Your task to perform on an android device: turn on data saver in the chrome app Image 0: 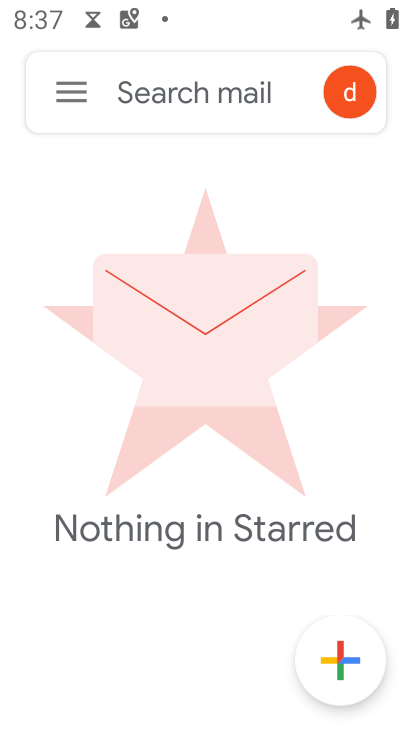
Step 0: press home button
Your task to perform on an android device: turn on data saver in the chrome app Image 1: 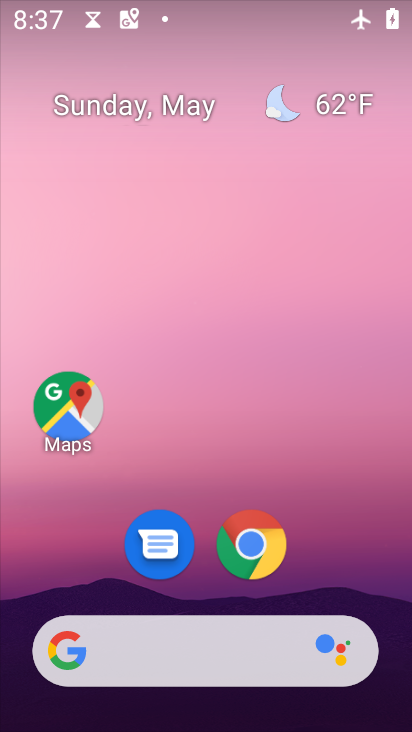
Step 1: click (257, 546)
Your task to perform on an android device: turn on data saver in the chrome app Image 2: 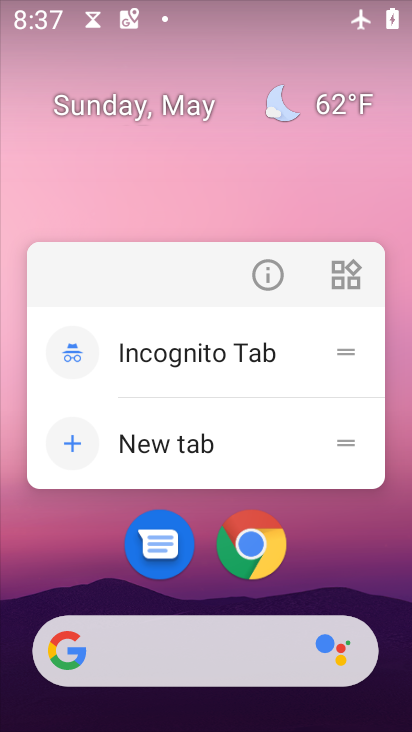
Step 2: click (245, 551)
Your task to perform on an android device: turn on data saver in the chrome app Image 3: 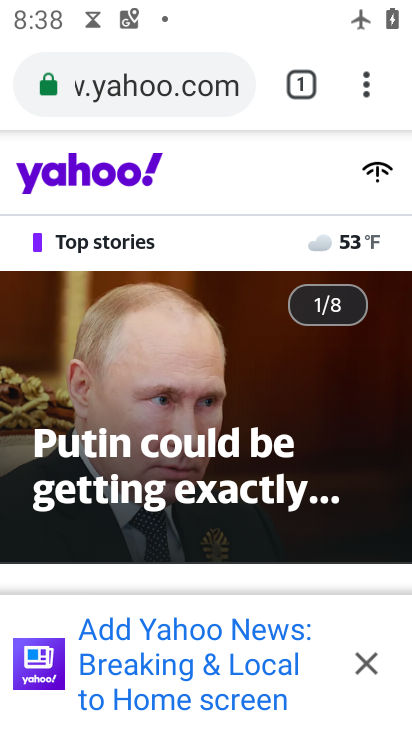
Step 3: click (366, 85)
Your task to perform on an android device: turn on data saver in the chrome app Image 4: 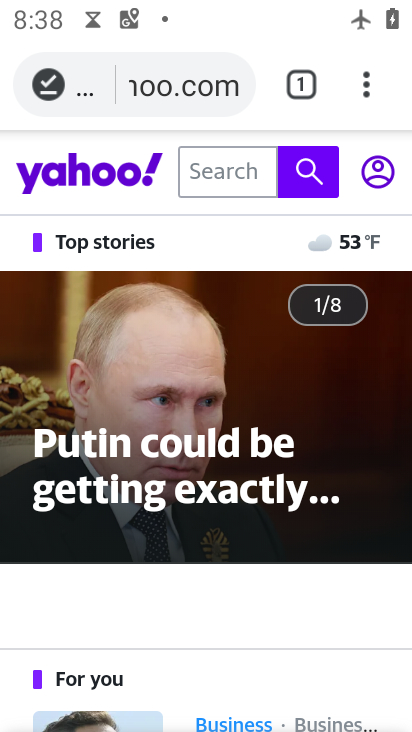
Step 4: click (373, 91)
Your task to perform on an android device: turn on data saver in the chrome app Image 5: 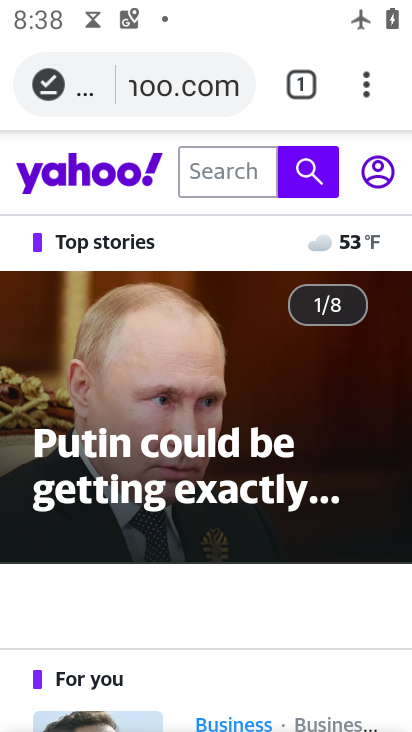
Step 5: click (366, 94)
Your task to perform on an android device: turn on data saver in the chrome app Image 6: 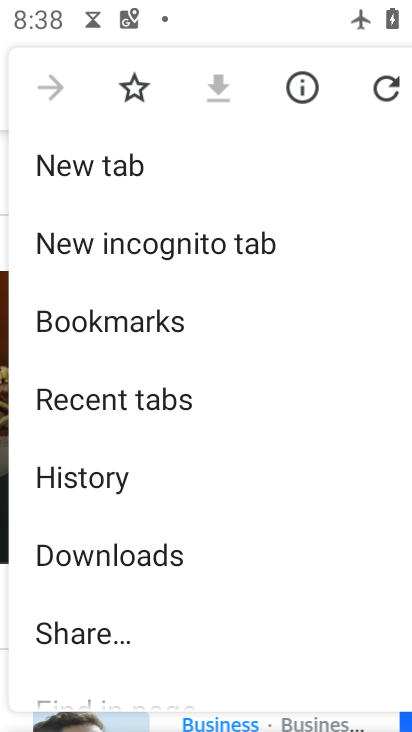
Step 6: drag from (174, 627) to (178, 138)
Your task to perform on an android device: turn on data saver in the chrome app Image 7: 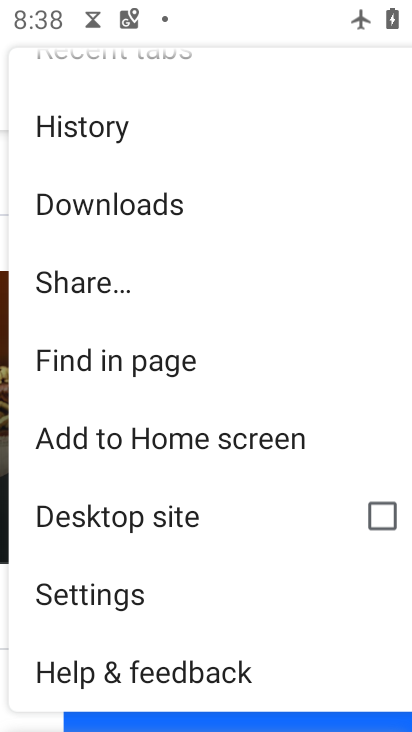
Step 7: click (77, 607)
Your task to perform on an android device: turn on data saver in the chrome app Image 8: 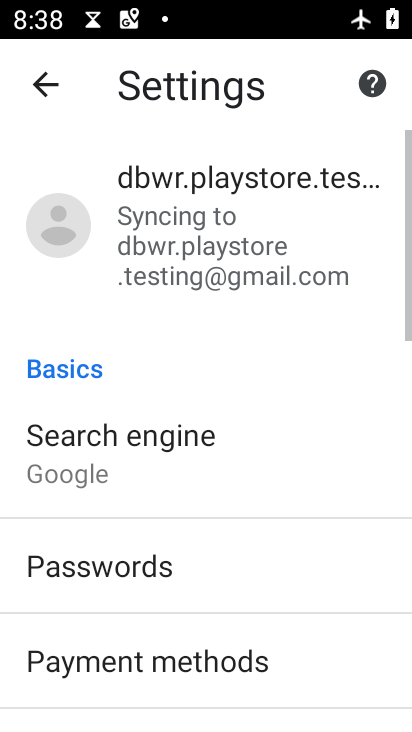
Step 8: drag from (155, 653) to (286, 208)
Your task to perform on an android device: turn on data saver in the chrome app Image 9: 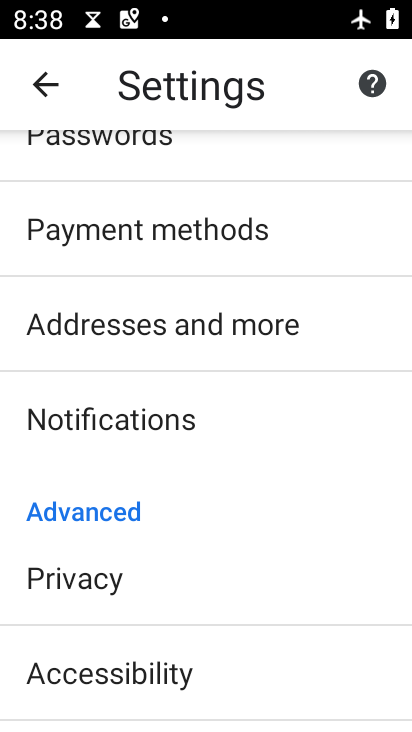
Step 9: drag from (216, 701) to (268, 309)
Your task to perform on an android device: turn on data saver in the chrome app Image 10: 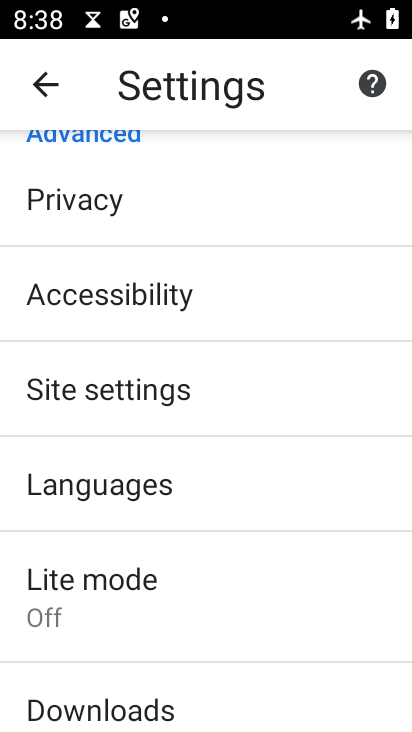
Step 10: drag from (171, 638) to (205, 275)
Your task to perform on an android device: turn on data saver in the chrome app Image 11: 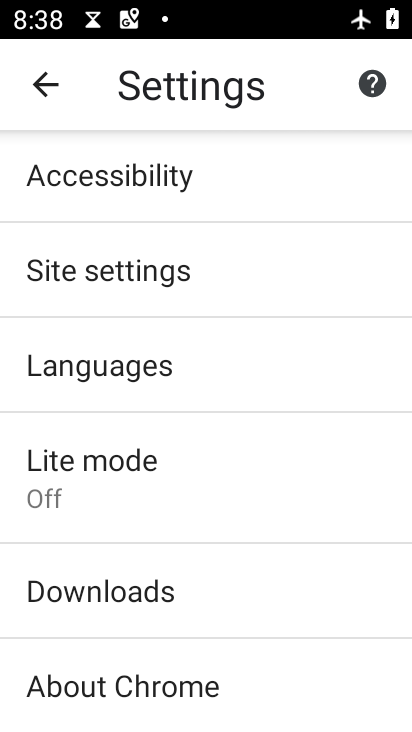
Step 11: click (153, 468)
Your task to perform on an android device: turn on data saver in the chrome app Image 12: 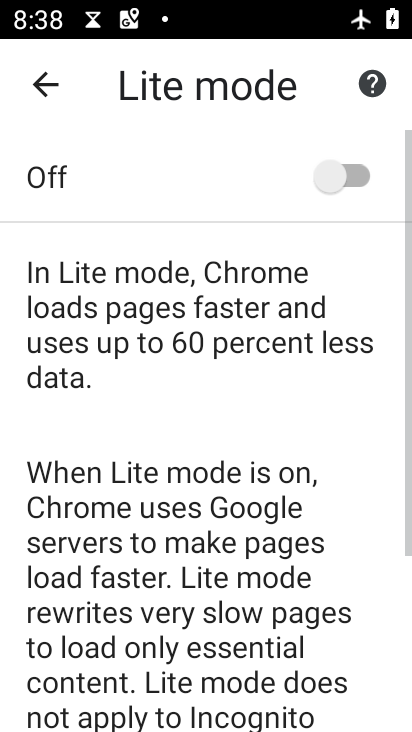
Step 12: click (370, 170)
Your task to perform on an android device: turn on data saver in the chrome app Image 13: 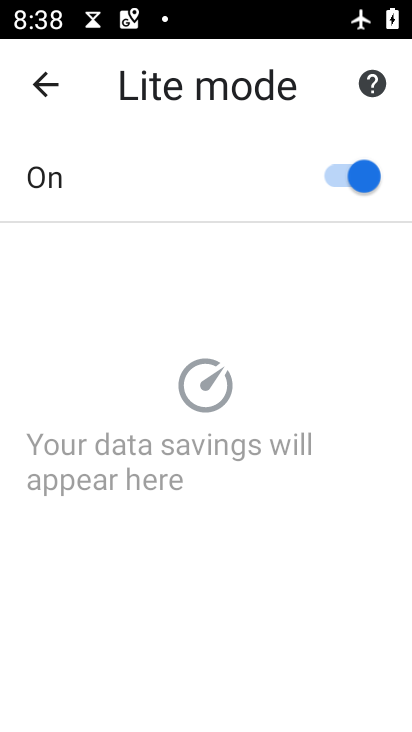
Step 13: task complete